Your task to perform on an android device: check data usage Image 0: 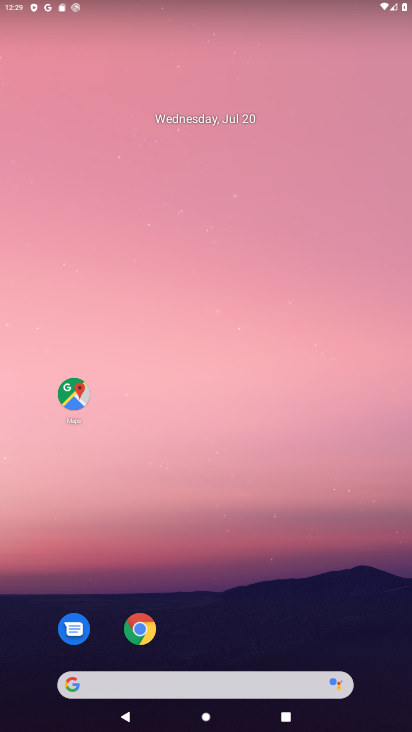
Step 0: drag from (251, 620) to (180, 11)
Your task to perform on an android device: check data usage Image 1: 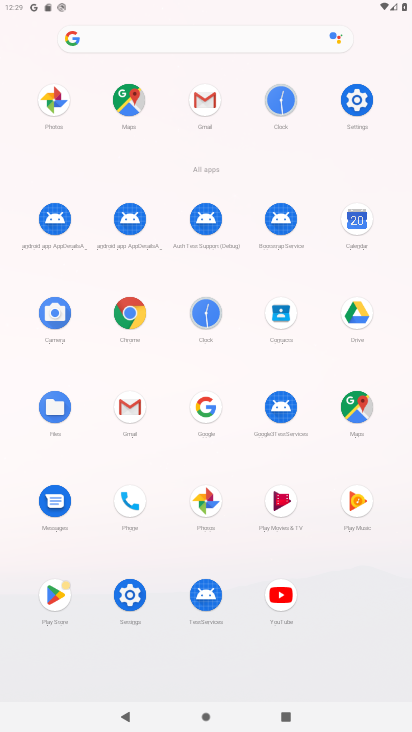
Step 1: click (361, 95)
Your task to perform on an android device: check data usage Image 2: 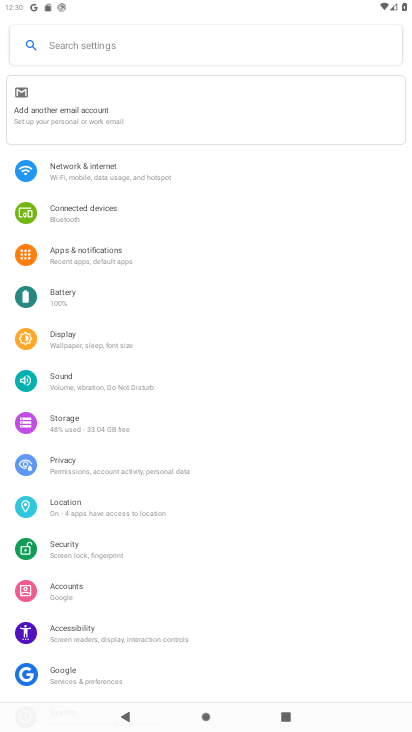
Step 2: click (124, 159)
Your task to perform on an android device: check data usage Image 3: 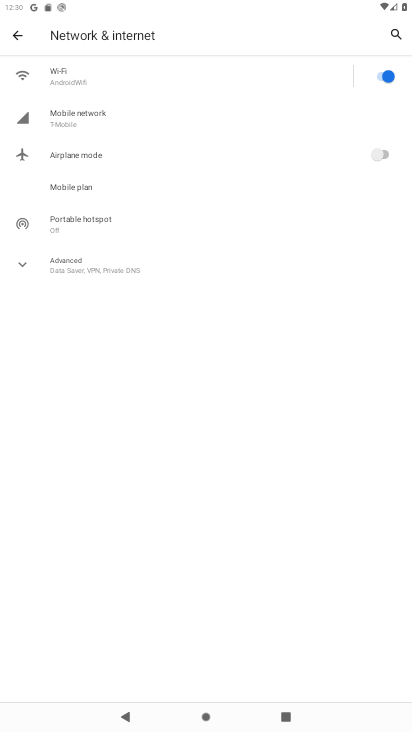
Step 3: click (98, 77)
Your task to perform on an android device: check data usage Image 4: 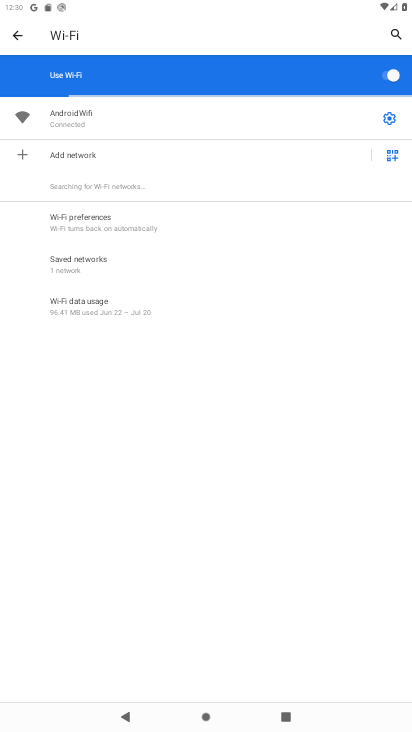
Step 4: click (158, 311)
Your task to perform on an android device: check data usage Image 5: 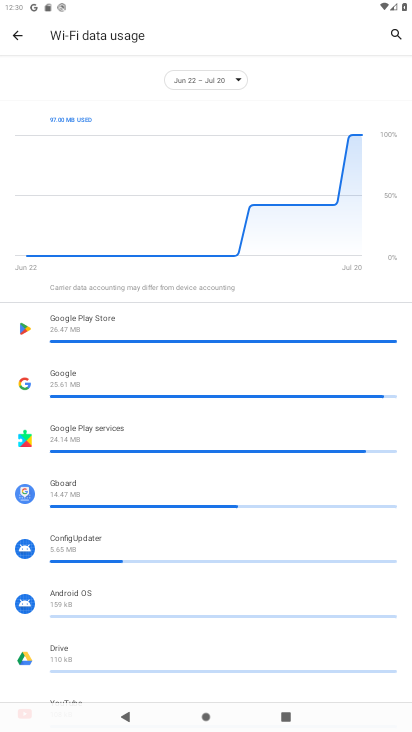
Step 5: task complete